Your task to perform on an android device: change keyboard looks Image 0: 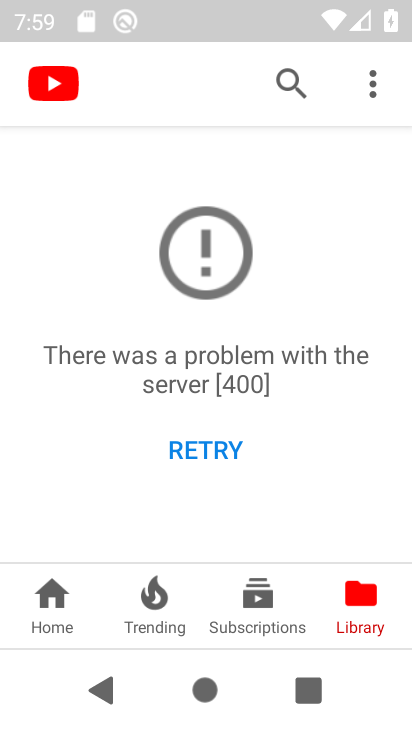
Step 0: press home button
Your task to perform on an android device: change keyboard looks Image 1: 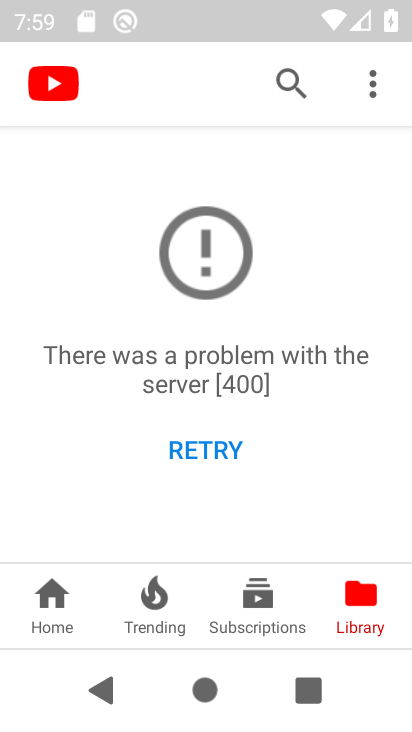
Step 1: press home button
Your task to perform on an android device: change keyboard looks Image 2: 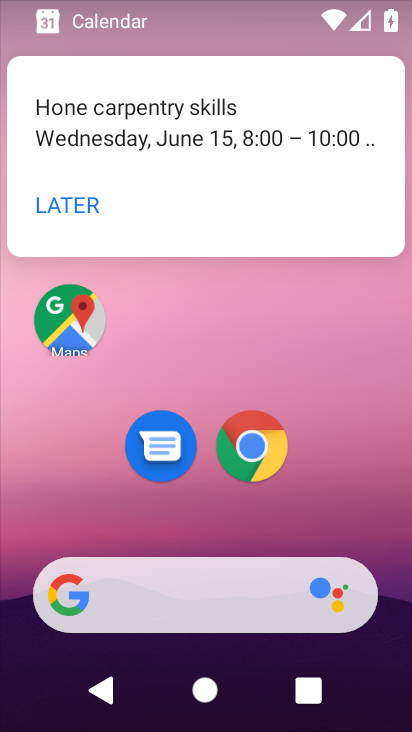
Step 2: click (65, 202)
Your task to perform on an android device: change keyboard looks Image 3: 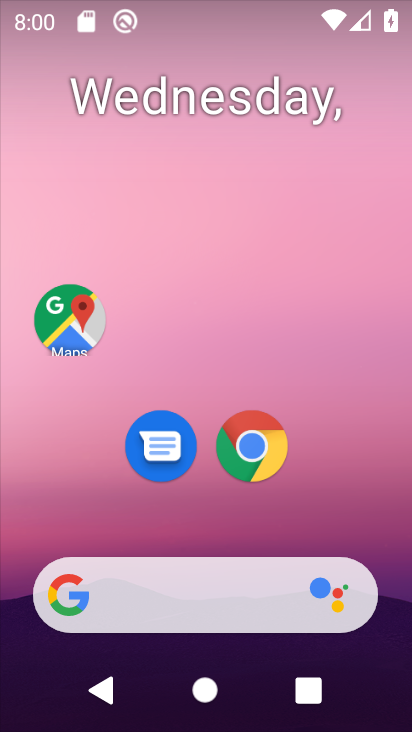
Step 3: drag from (208, 533) to (244, 31)
Your task to perform on an android device: change keyboard looks Image 4: 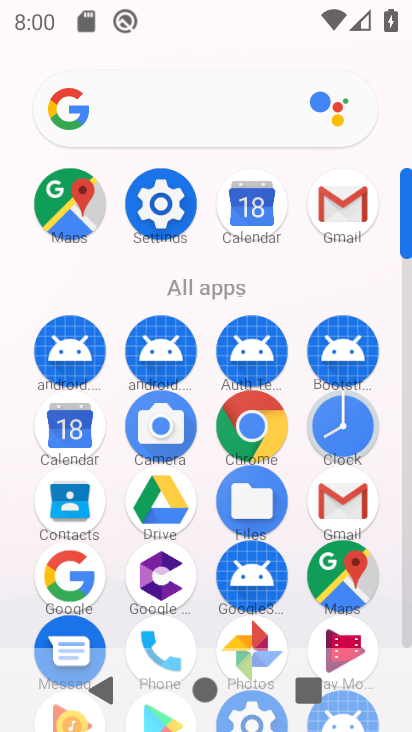
Step 4: click (162, 200)
Your task to perform on an android device: change keyboard looks Image 5: 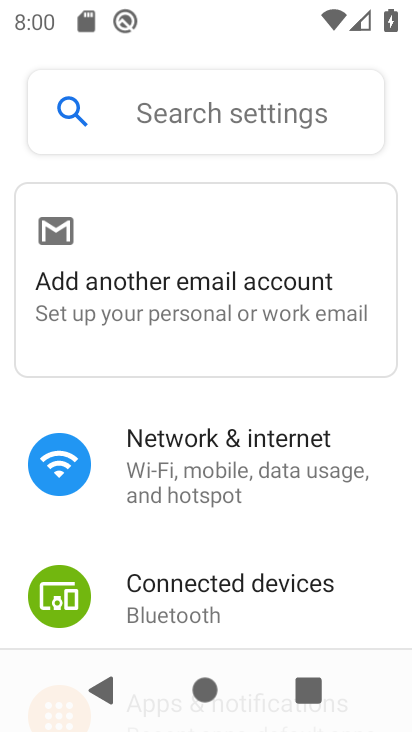
Step 5: drag from (232, 619) to (234, 38)
Your task to perform on an android device: change keyboard looks Image 6: 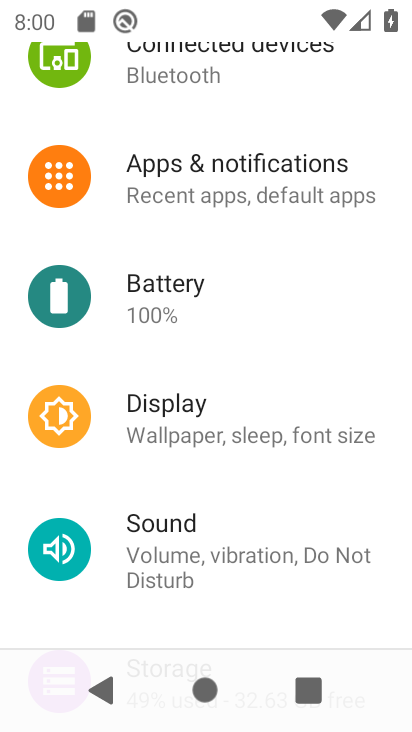
Step 6: drag from (218, 607) to (258, 7)
Your task to perform on an android device: change keyboard looks Image 7: 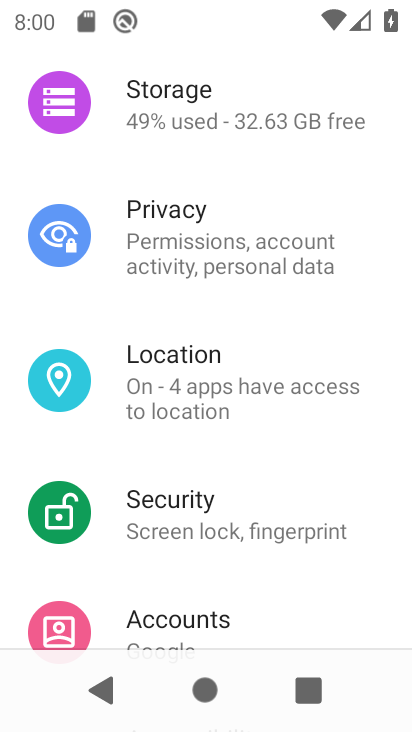
Step 7: drag from (232, 532) to (263, 34)
Your task to perform on an android device: change keyboard looks Image 8: 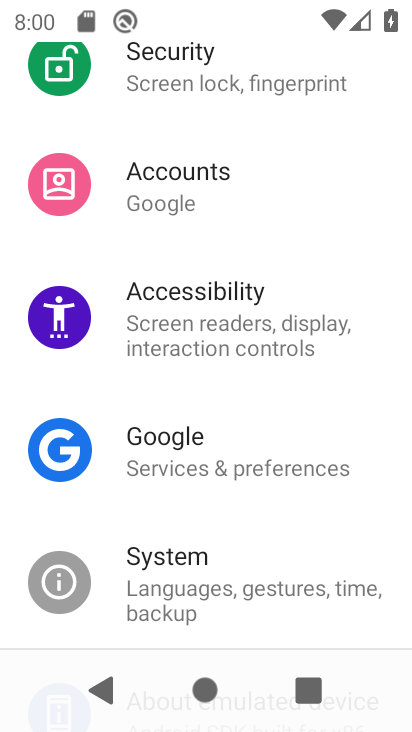
Step 8: click (223, 571)
Your task to perform on an android device: change keyboard looks Image 9: 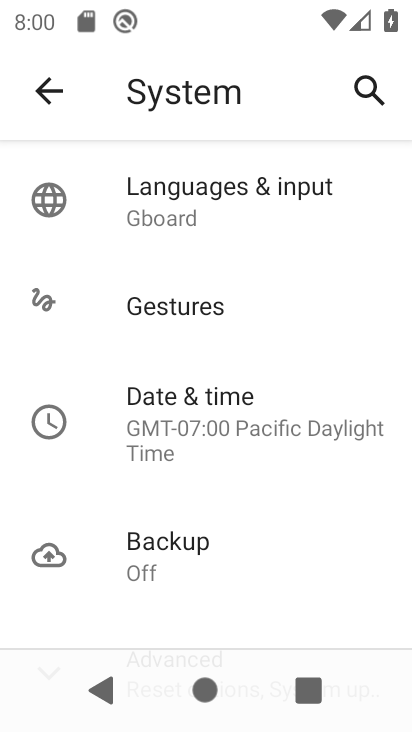
Step 9: drag from (210, 582) to (236, 93)
Your task to perform on an android device: change keyboard looks Image 10: 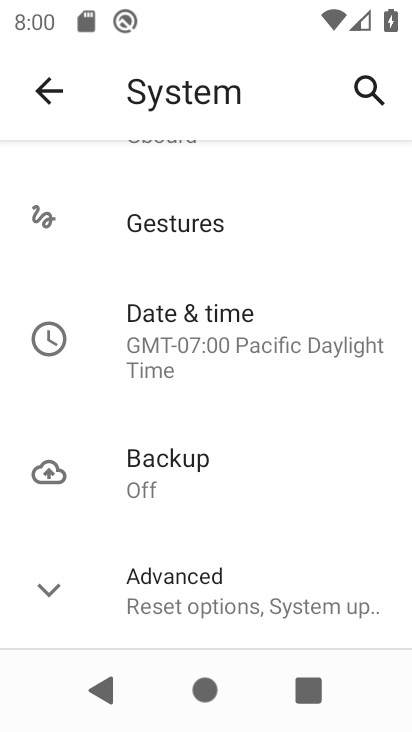
Step 10: drag from (137, 188) to (139, 569)
Your task to perform on an android device: change keyboard looks Image 11: 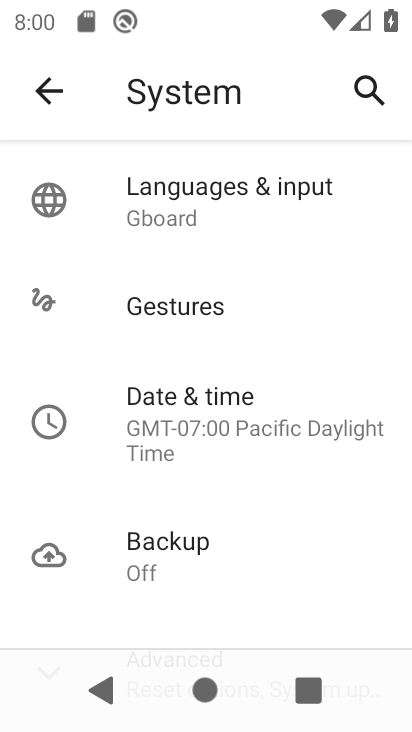
Step 11: click (134, 195)
Your task to perform on an android device: change keyboard looks Image 12: 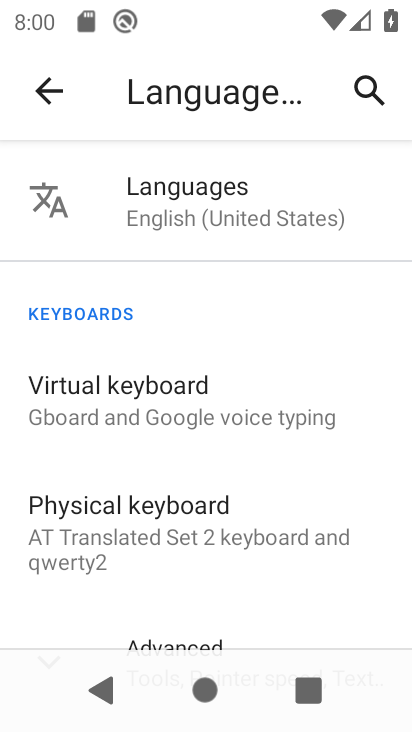
Step 12: click (204, 402)
Your task to perform on an android device: change keyboard looks Image 13: 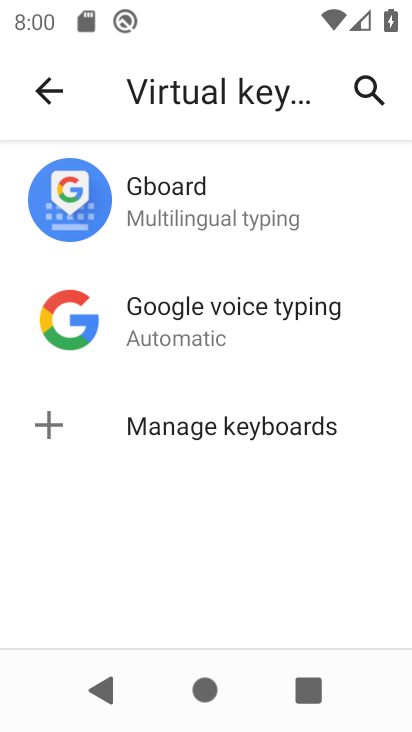
Step 13: click (164, 196)
Your task to perform on an android device: change keyboard looks Image 14: 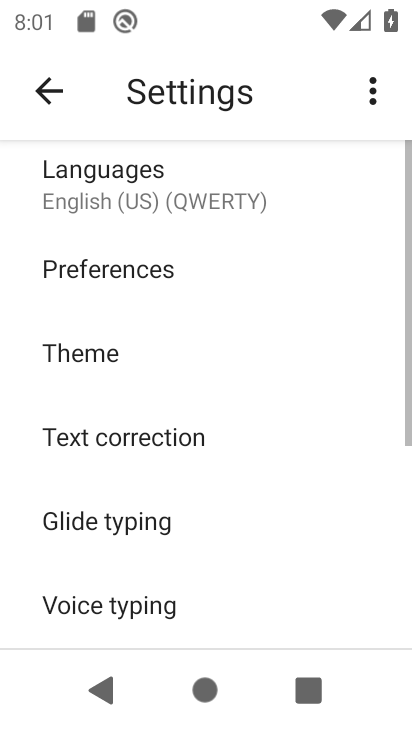
Step 14: click (154, 203)
Your task to perform on an android device: change keyboard looks Image 15: 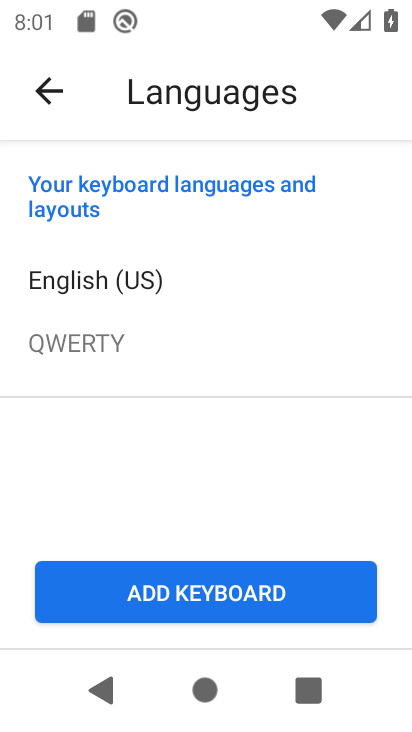
Step 15: click (33, 98)
Your task to perform on an android device: change keyboard looks Image 16: 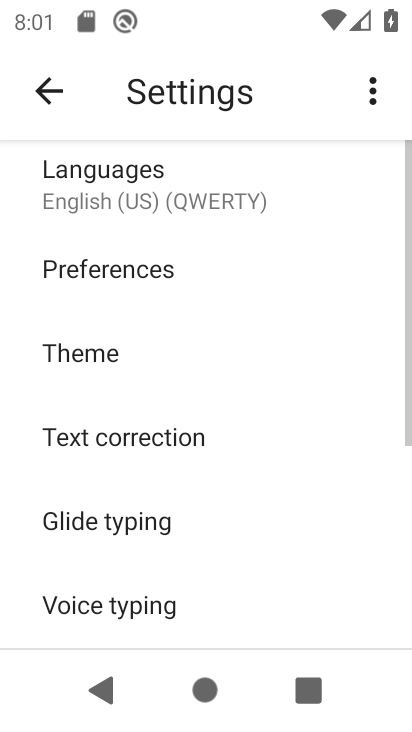
Step 16: click (112, 343)
Your task to perform on an android device: change keyboard looks Image 17: 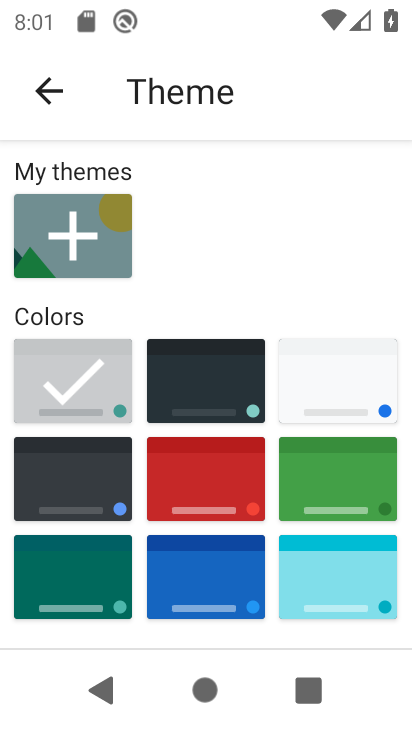
Step 17: click (190, 484)
Your task to perform on an android device: change keyboard looks Image 18: 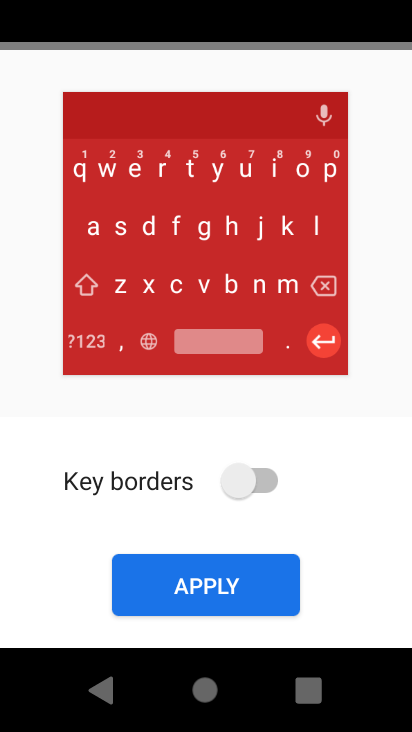
Step 18: click (201, 588)
Your task to perform on an android device: change keyboard looks Image 19: 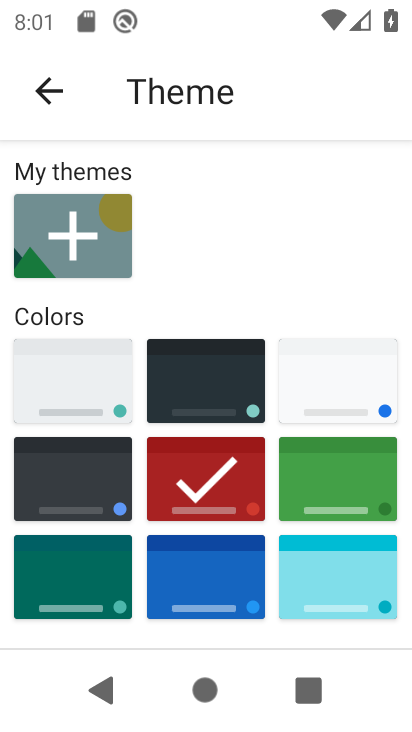
Step 19: task complete